Your task to perform on an android device: Go to location settings Image 0: 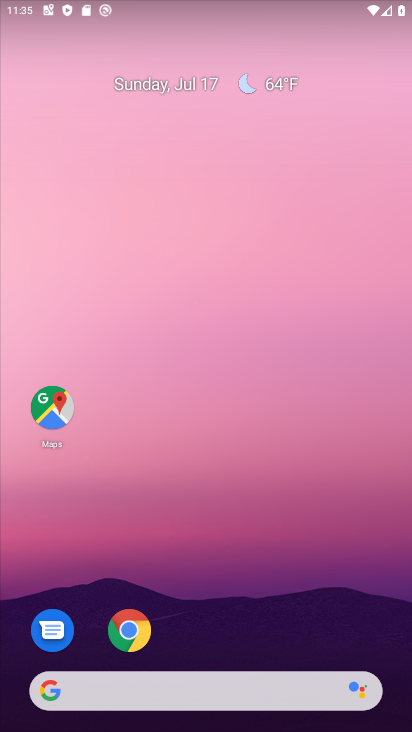
Step 0: drag from (398, 645) to (315, 87)
Your task to perform on an android device: Go to location settings Image 1: 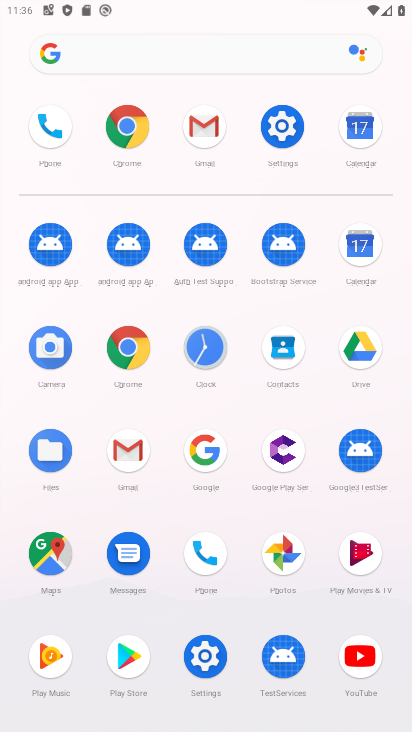
Step 1: click (202, 659)
Your task to perform on an android device: Go to location settings Image 2: 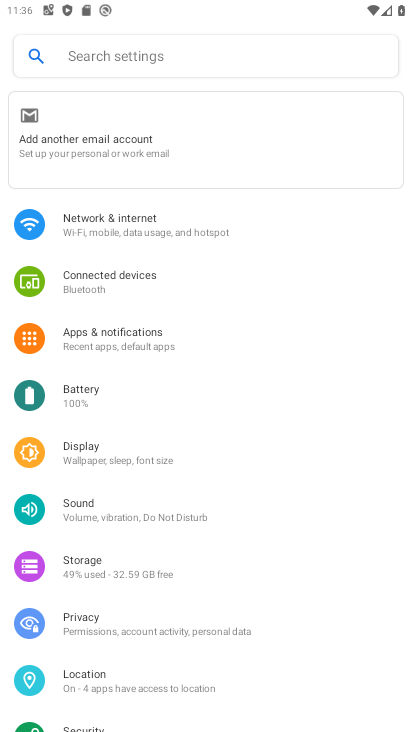
Step 2: click (87, 671)
Your task to perform on an android device: Go to location settings Image 3: 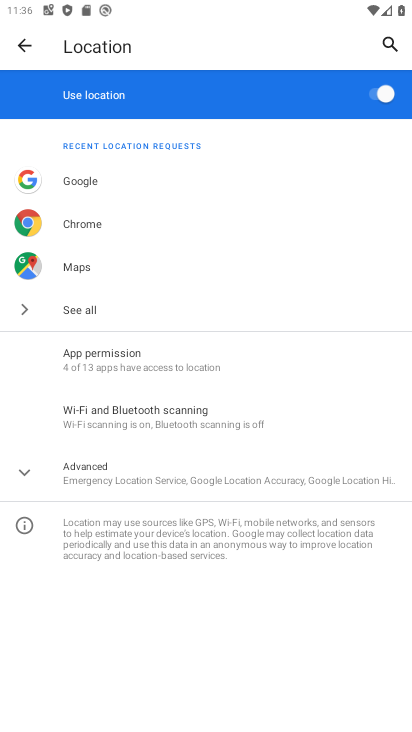
Step 3: task complete